Your task to perform on an android device: turn off picture-in-picture Image 0: 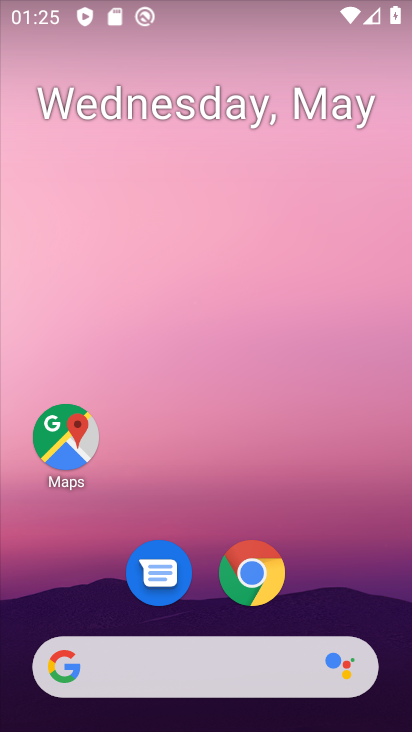
Step 0: click (254, 574)
Your task to perform on an android device: turn off picture-in-picture Image 1: 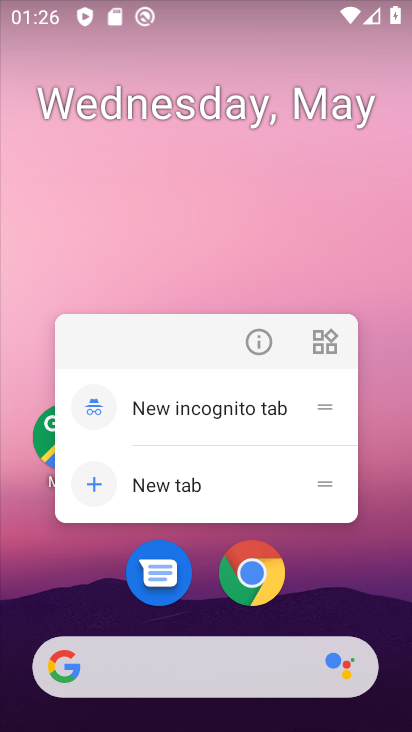
Step 1: click (261, 343)
Your task to perform on an android device: turn off picture-in-picture Image 2: 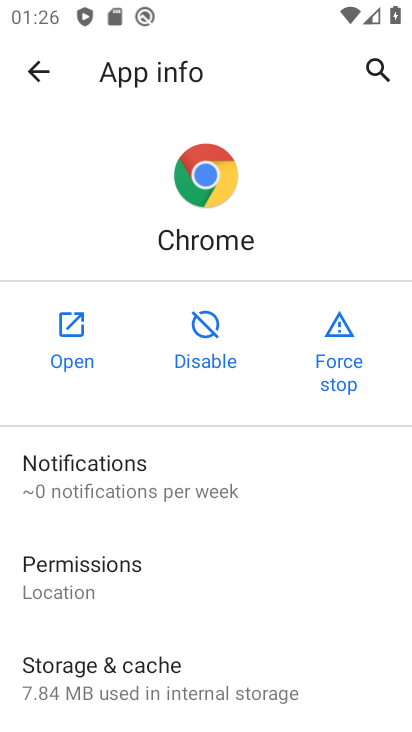
Step 2: drag from (223, 561) to (265, 312)
Your task to perform on an android device: turn off picture-in-picture Image 3: 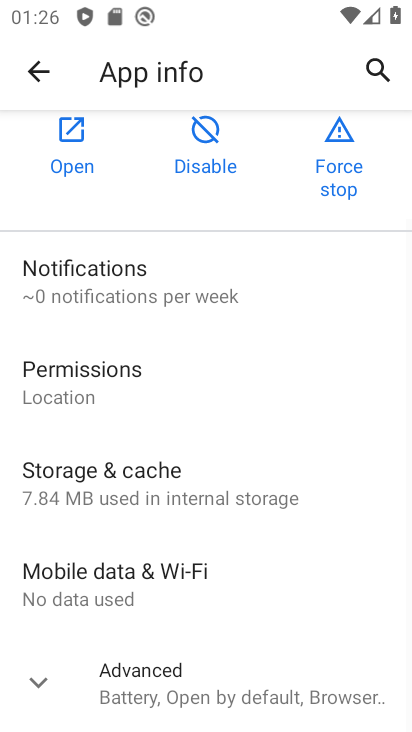
Step 3: drag from (236, 532) to (286, 370)
Your task to perform on an android device: turn off picture-in-picture Image 4: 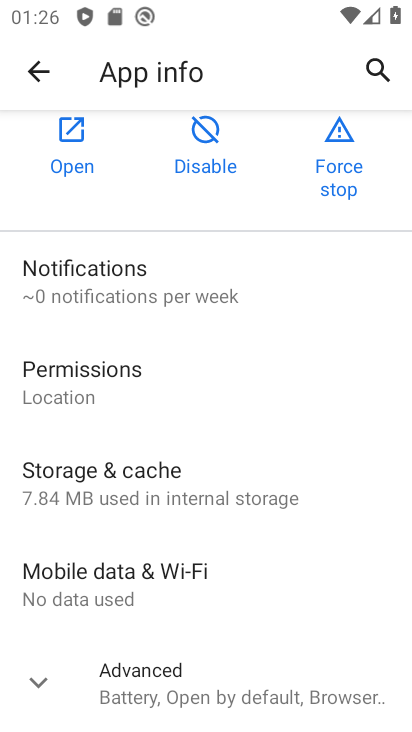
Step 4: click (169, 683)
Your task to perform on an android device: turn off picture-in-picture Image 5: 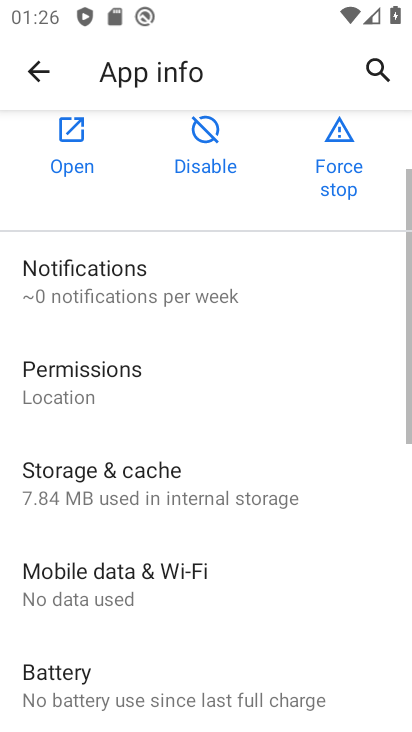
Step 5: drag from (169, 682) to (252, 457)
Your task to perform on an android device: turn off picture-in-picture Image 6: 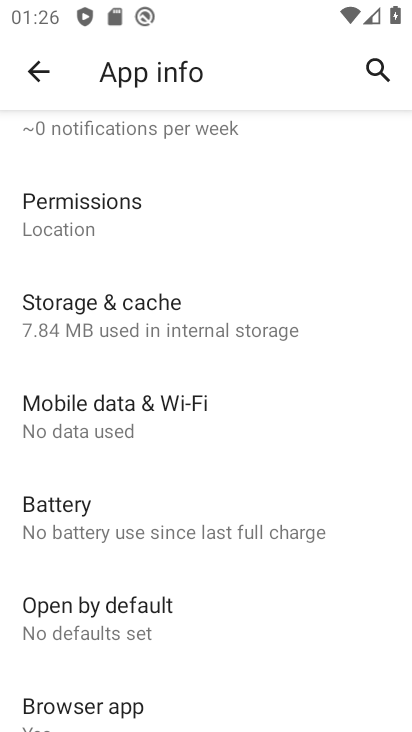
Step 6: drag from (195, 628) to (284, 411)
Your task to perform on an android device: turn off picture-in-picture Image 7: 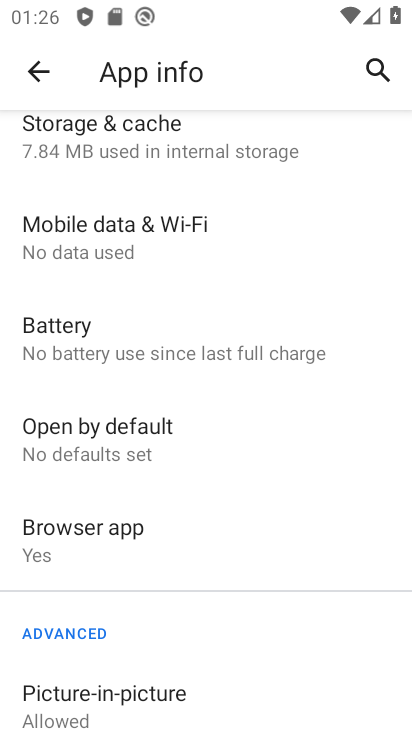
Step 7: drag from (191, 629) to (256, 504)
Your task to perform on an android device: turn off picture-in-picture Image 8: 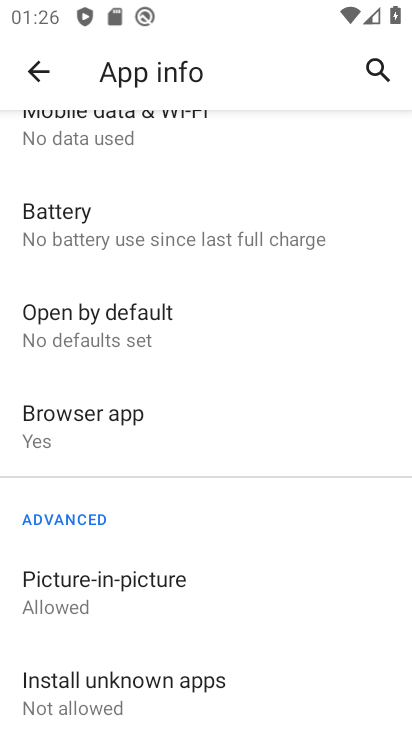
Step 8: click (124, 570)
Your task to perform on an android device: turn off picture-in-picture Image 9: 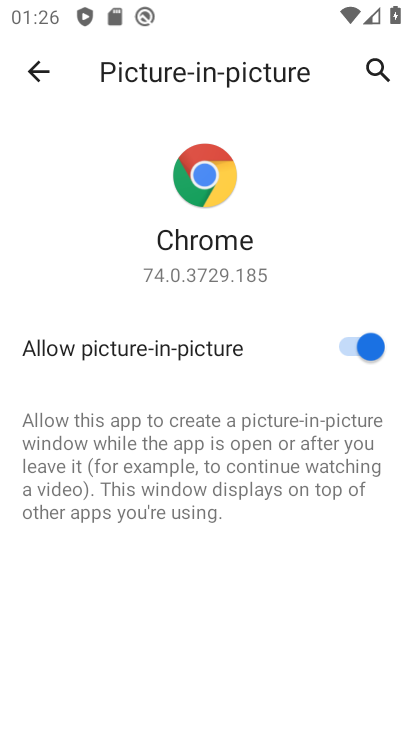
Step 9: click (378, 345)
Your task to perform on an android device: turn off picture-in-picture Image 10: 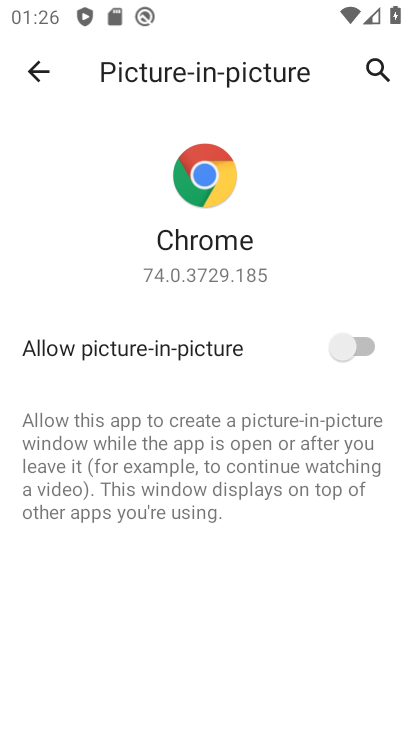
Step 10: task complete